Your task to perform on an android device: choose inbox layout in the gmail app Image 0: 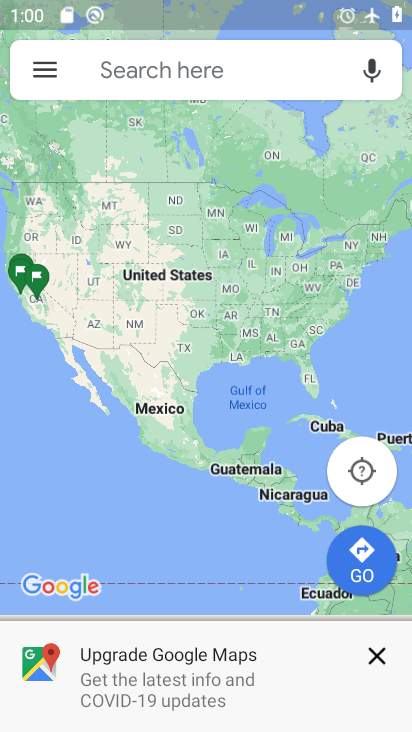
Step 0: press home button
Your task to perform on an android device: choose inbox layout in the gmail app Image 1: 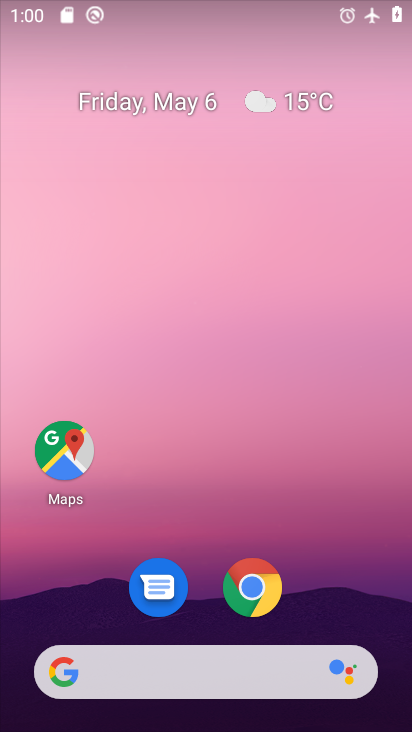
Step 1: drag from (328, 599) to (203, 54)
Your task to perform on an android device: choose inbox layout in the gmail app Image 2: 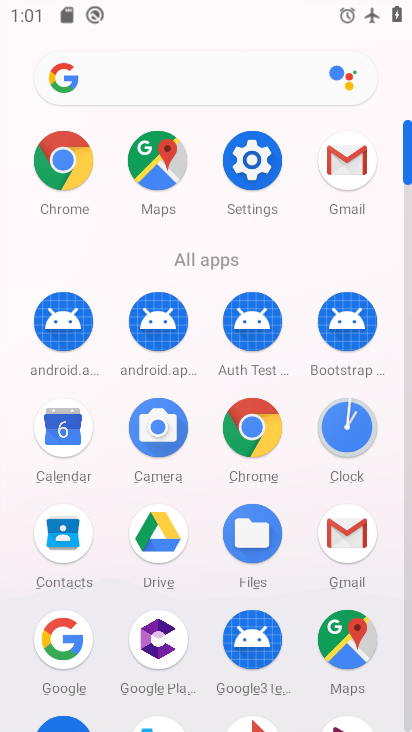
Step 2: click (343, 528)
Your task to perform on an android device: choose inbox layout in the gmail app Image 3: 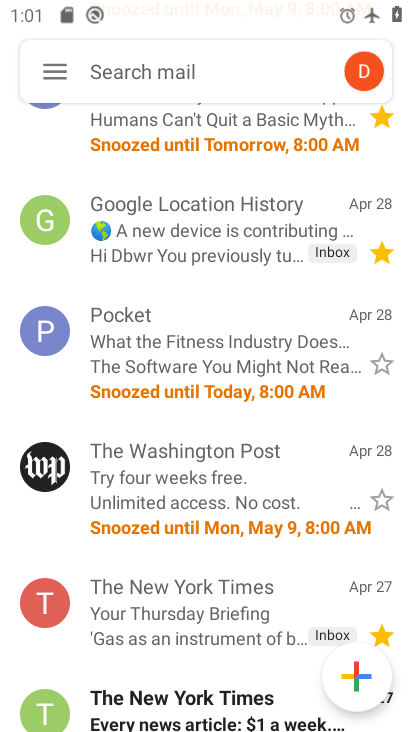
Step 3: click (49, 64)
Your task to perform on an android device: choose inbox layout in the gmail app Image 4: 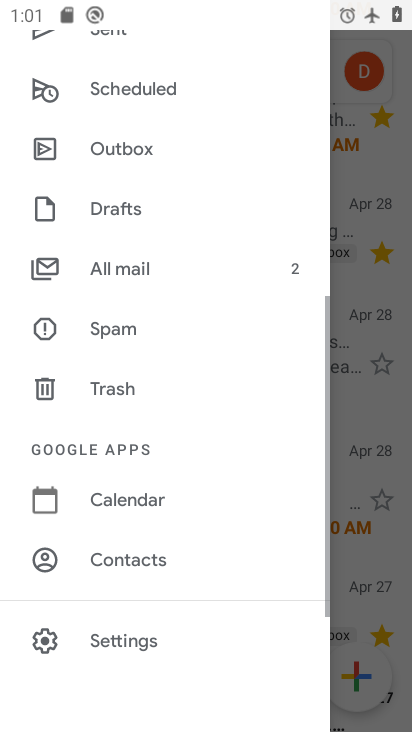
Step 4: click (155, 615)
Your task to perform on an android device: choose inbox layout in the gmail app Image 5: 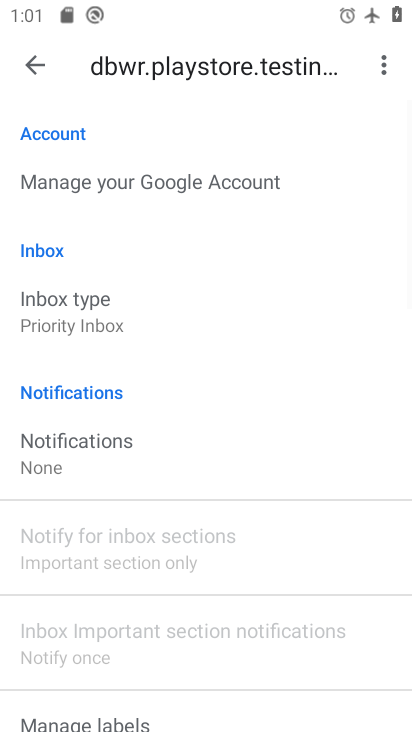
Step 5: click (104, 319)
Your task to perform on an android device: choose inbox layout in the gmail app Image 6: 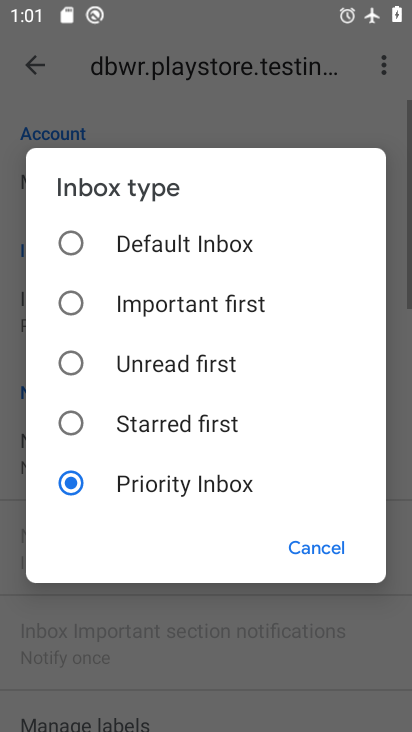
Step 6: click (188, 237)
Your task to perform on an android device: choose inbox layout in the gmail app Image 7: 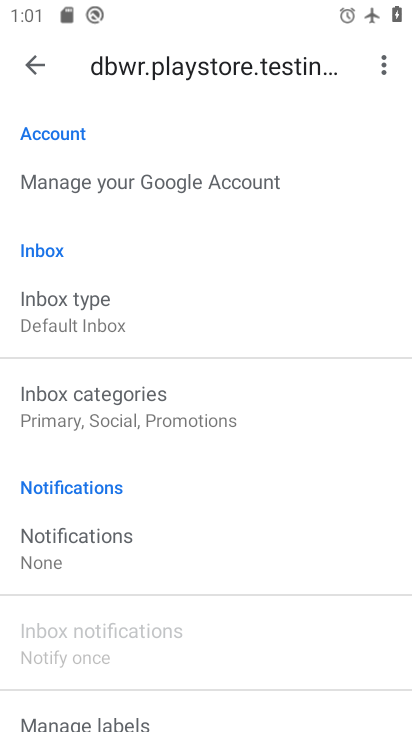
Step 7: task complete